Your task to perform on an android device: turn pop-ups on in chrome Image 0: 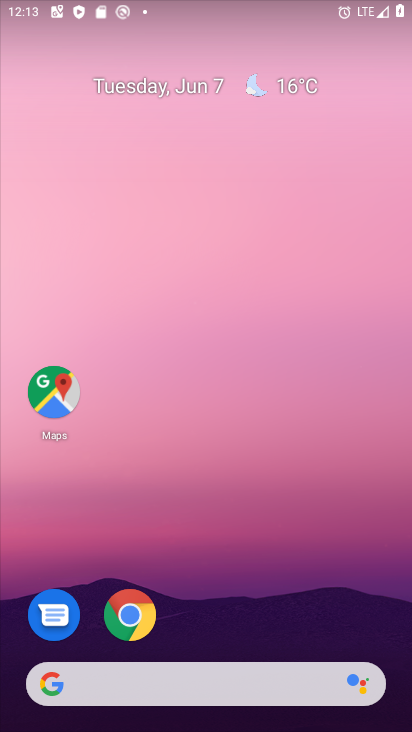
Step 0: press home button
Your task to perform on an android device: turn pop-ups on in chrome Image 1: 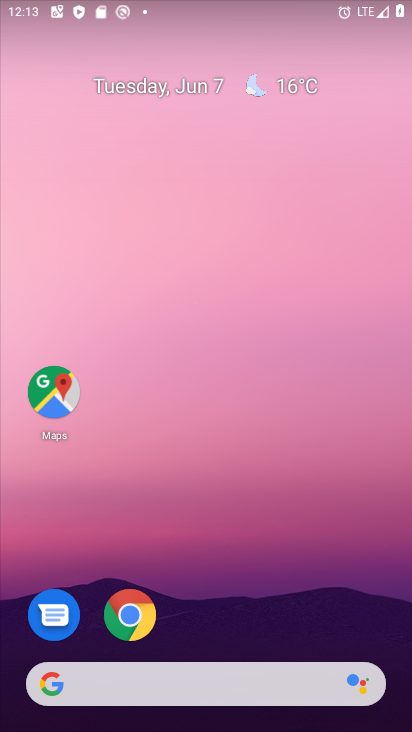
Step 1: click (126, 607)
Your task to perform on an android device: turn pop-ups on in chrome Image 2: 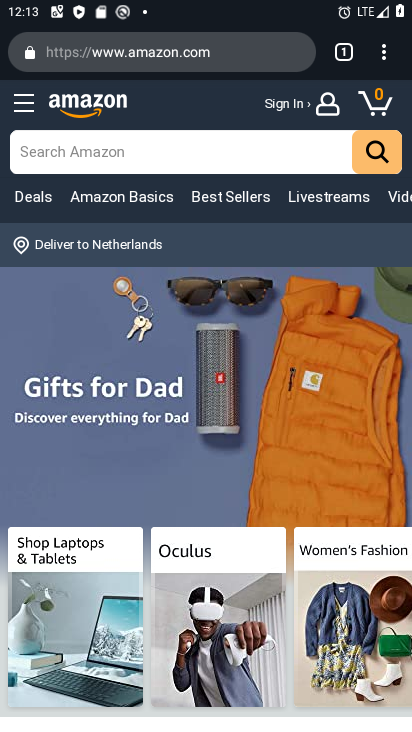
Step 2: click (382, 55)
Your task to perform on an android device: turn pop-ups on in chrome Image 3: 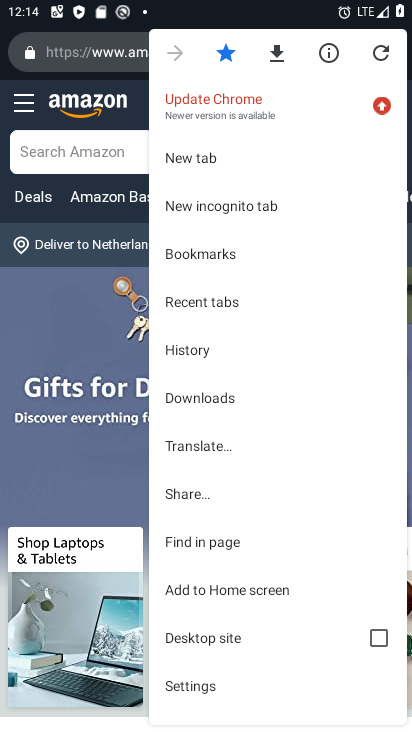
Step 3: click (237, 679)
Your task to perform on an android device: turn pop-ups on in chrome Image 4: 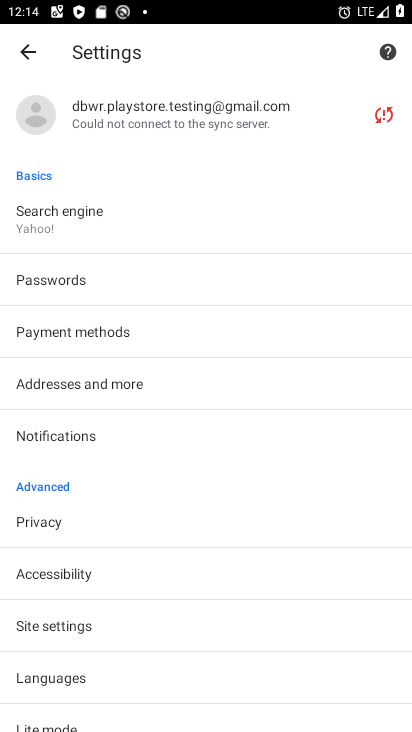
Step 4: click (119, 616)
Your task to perform on an android device: turn pop-ups on in chrome Image 5: 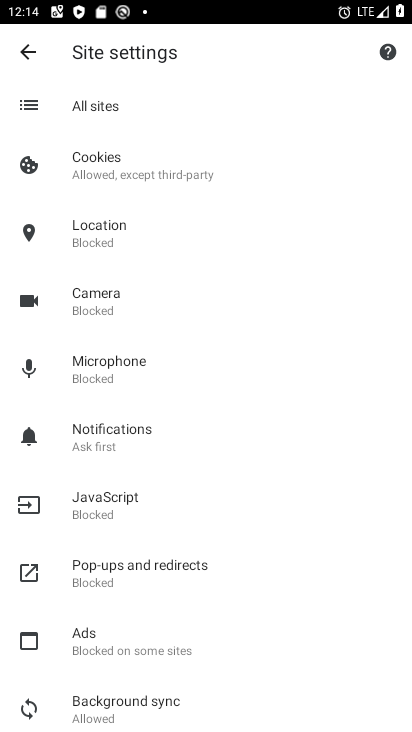
Step 5: click (144, 571)
Your task to perform on an android device: turn pop-ups on in chrome Image 6: 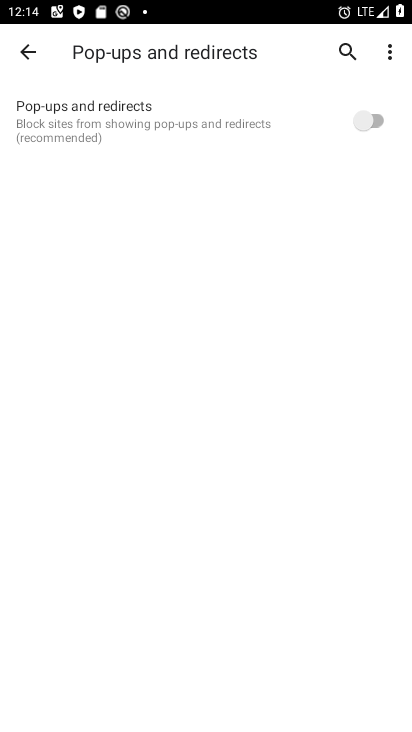
Step 6: click (367, 116)
Your task to perform on an android device: turn pop-ups on in chrome Image 7: 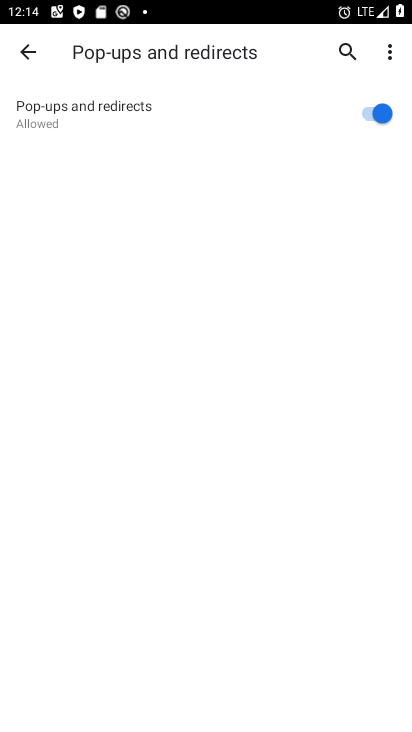
Step 7: task complete